Your task to perform on an android device: Play the last video I watched on Youtube Image 0: 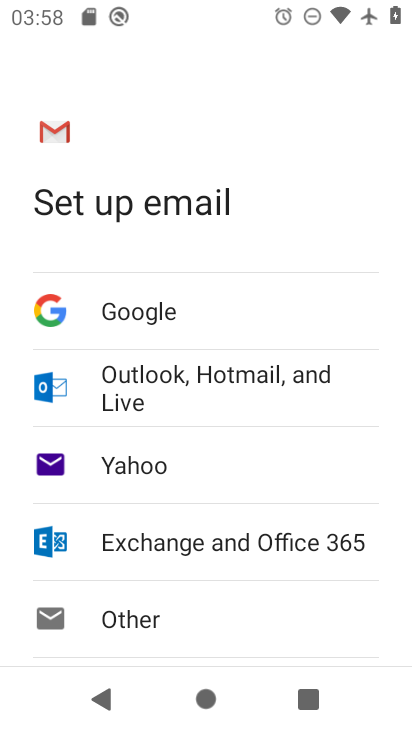
Step 0: press home button
Your task to perform on an android device: Play the last video I watched on Youtube Image 1: 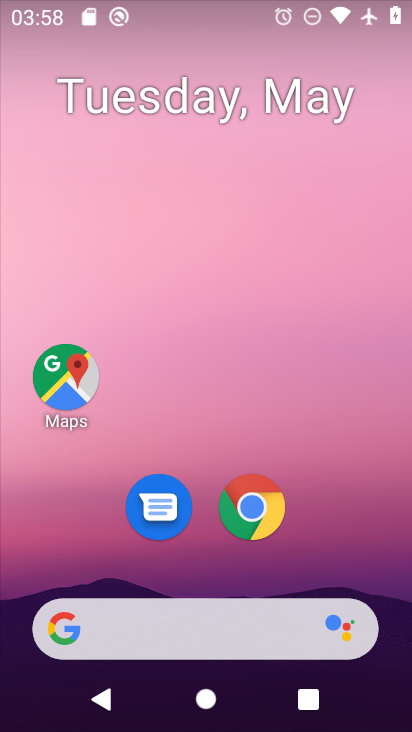
Step 1: drag from (210, 573) to (213, 109)
Your task to perform on an android device: Play the last video I watched on Youtube Image 2: 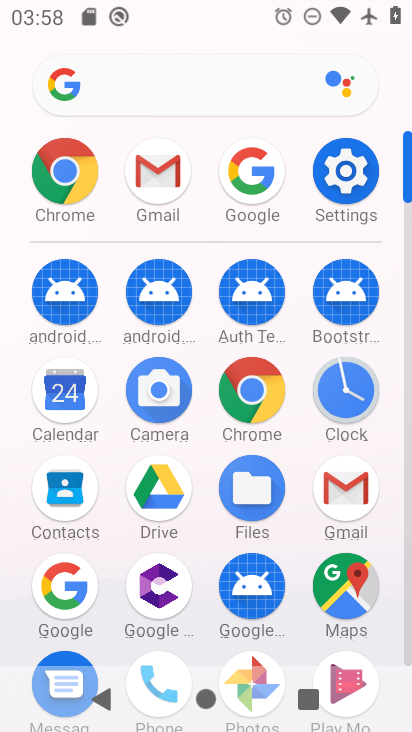
Step 2: drag from (273, 624) to (267, 297)
Your task to perform on an android device: Play the last video I watched on Youtube Image 3: 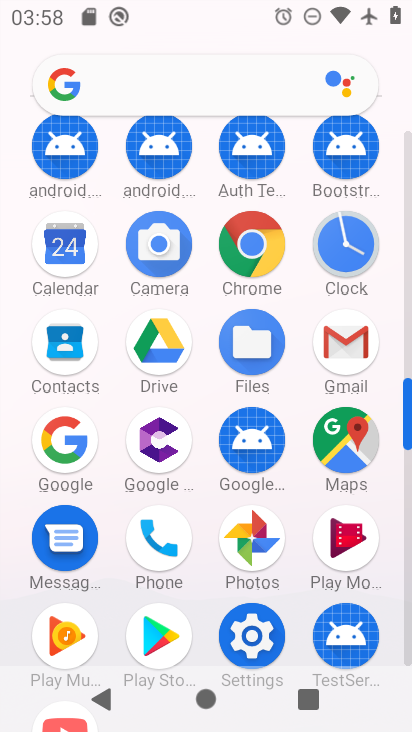
Step 3: drag from (253, 510) to (255, 266)
Your task to perform on an android device: Play the last video I watched on Youtube Image 4: 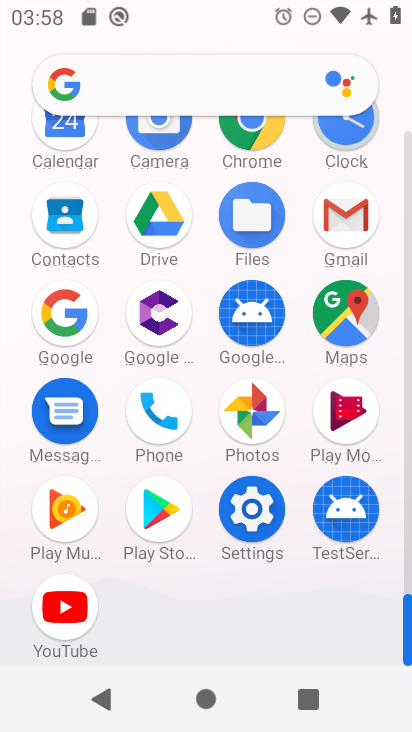
Step 4: drag from (240, 498) to (248, 188)
Your task to perform on an android device: Play the last video I watched on Youtube Image 5: 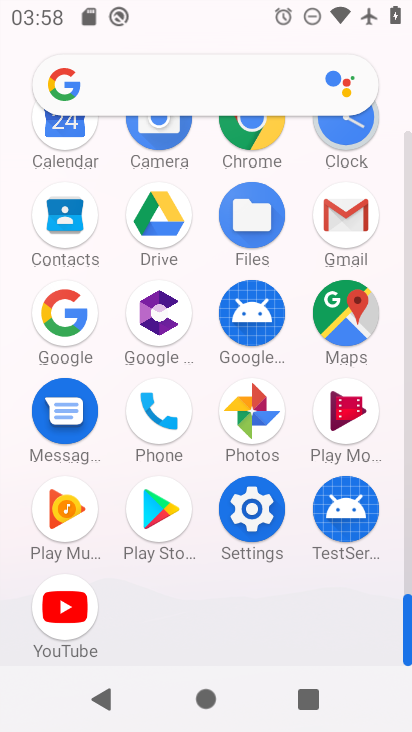
Step 5: drag from (254, 481) to (254, 191)
Your task to perform on an android device: Play the last video I watched on Youtube Image 6: 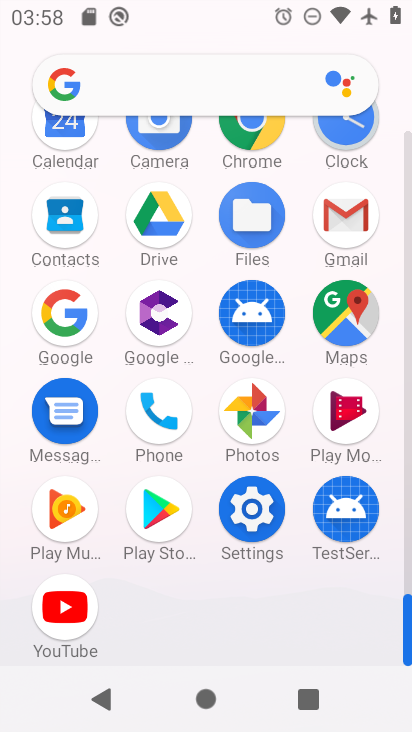
Step 6: click (68, 570)
Your task to perform on an android device: Play the last video I watched on Youtube Image 7: 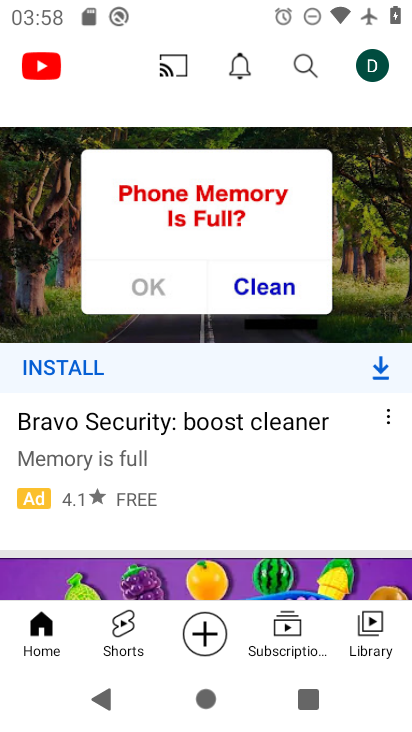
Step 7: click (369, 635)
Your task to perform on an android device: Play the last video I watched on Youtube Image 8: 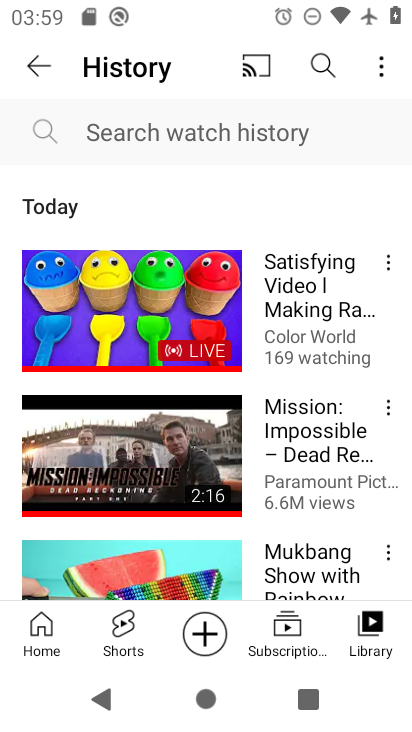
Step 8: click (88, 283)
Your task to perform on an android device: Play the last video I watched on Youtube Image 9: 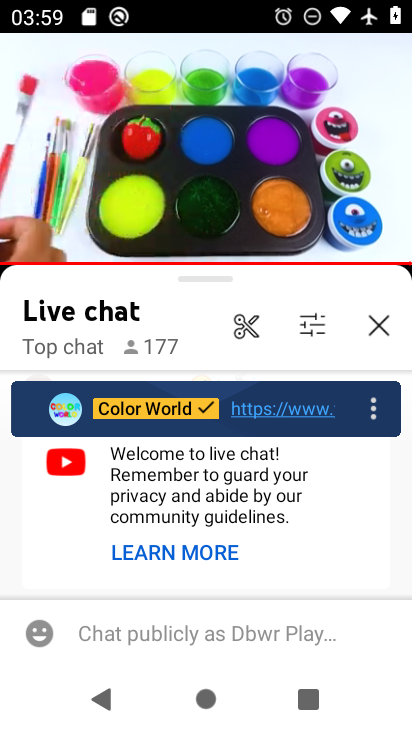
Step 9: task complete